Your task to perform on an android device: turn off location Image 0: 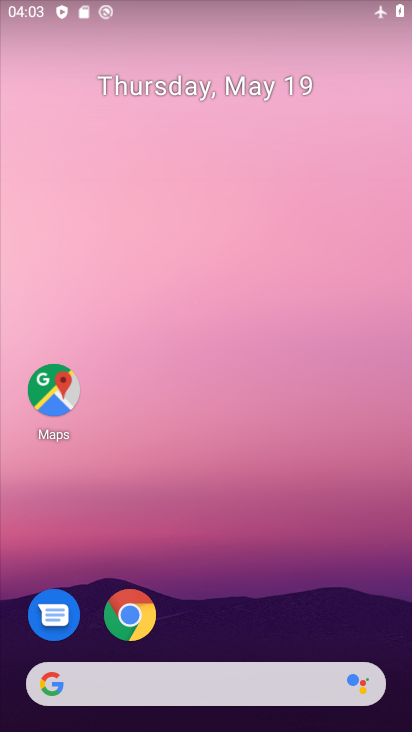
Step 0: drag from (295, 644) to (344, 10)
Your task to perform on an android device: turn off location Image 1: 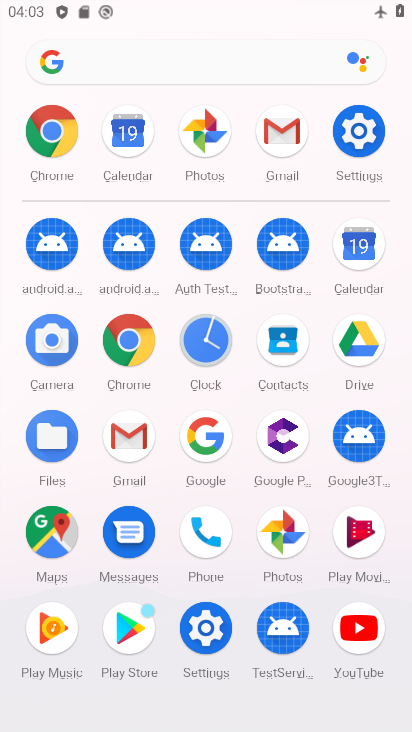
Step 1: click (360, 134)
Your task to perform on an android device: turn off location Image 2: 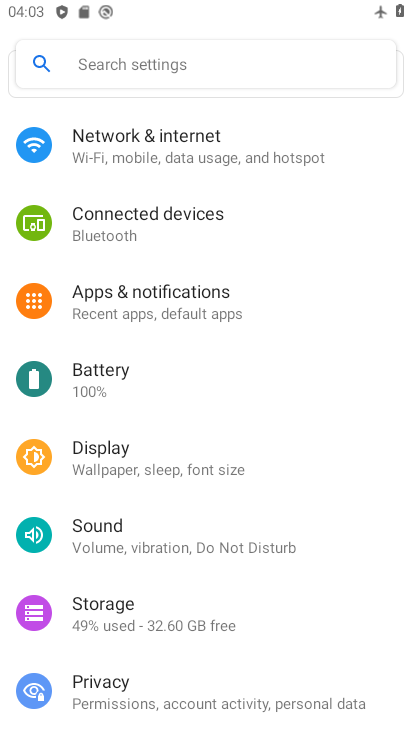
Step 2: drag from (199, 588) to (212, 255)
Your task to perform on an android device: turn off location Image 3: 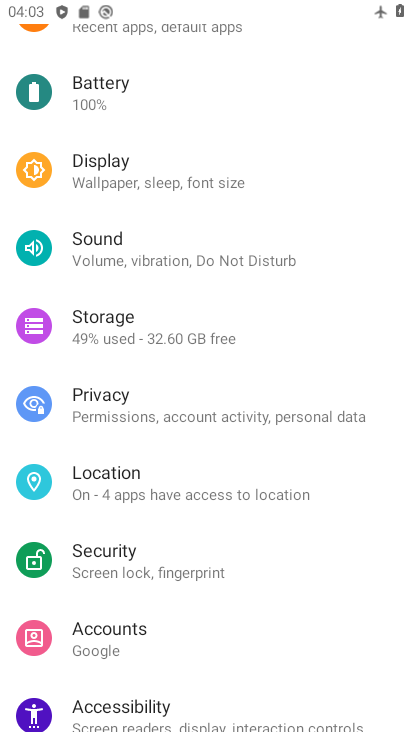
Step 3: click (82, 487)
Your task to perform on an android device: turn off location Image 4: 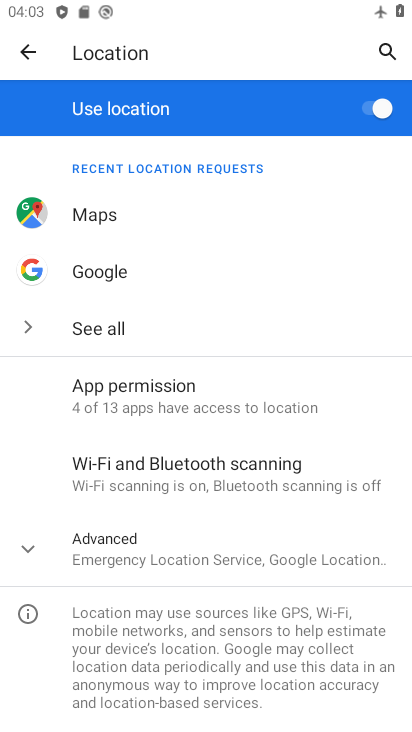
Step 4: click (373, 120)
Your task to perform on an android device: turn off location Image 5: 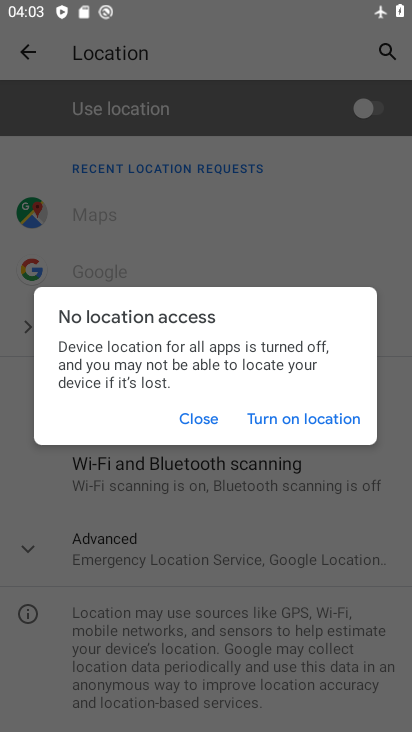
Step 5: task complete